Your task to perform on an android device: toggle airplane mode Image 0: 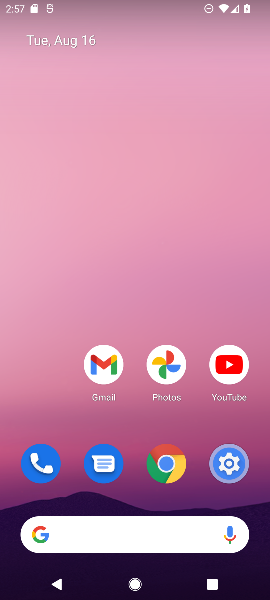
Step 0: drag from (111, 517) to (1, 323)
Your task to perform on an android device: toggle airplane mode Image 1: 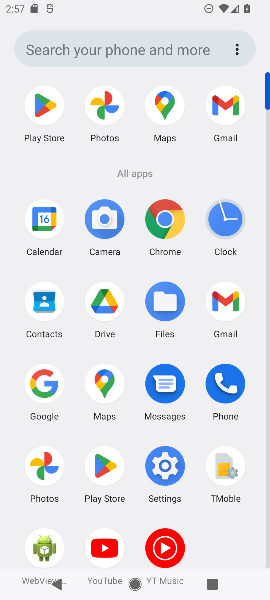
Step 1: click (157, 466)
Your task to perform on an android device: toggle airplane mode Image 2: 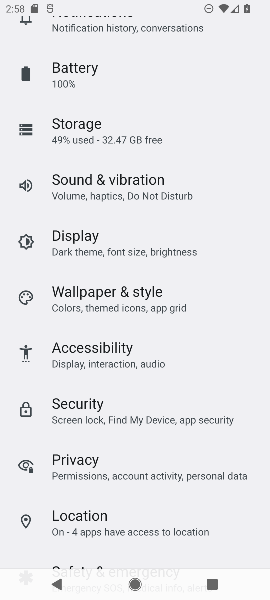
Step 2: drag from (107, 99) to (72, 485)
Your task to perform on an android device: toggle airplane mode Image 3: 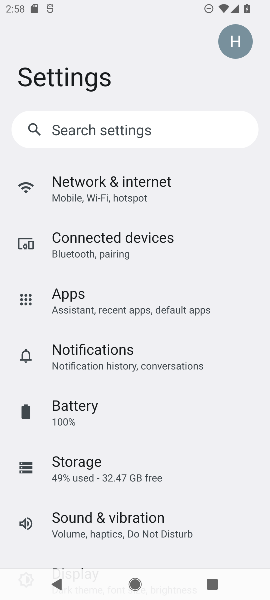
Step 3: click (95, 188)
Your task to perform on an android device: toggle airplane mode Image 4: 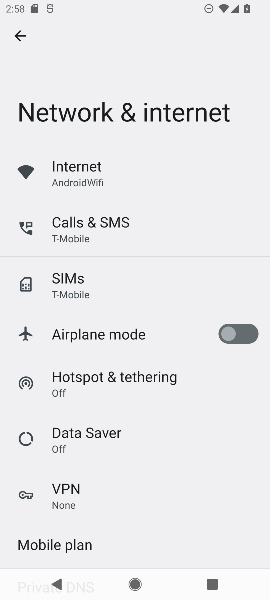
Step 4: click (234, 323)
Your task to perform on an android device: toggle airplane mode Image 5: 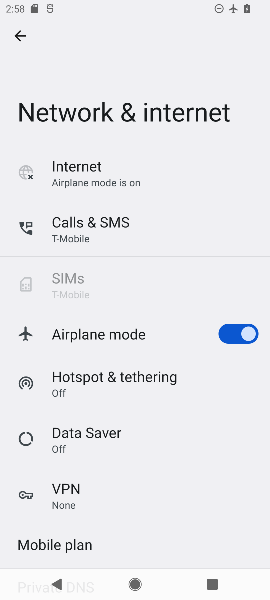
Step 5: task complete